Your task to perform on an android device: change timer sound Image 0: 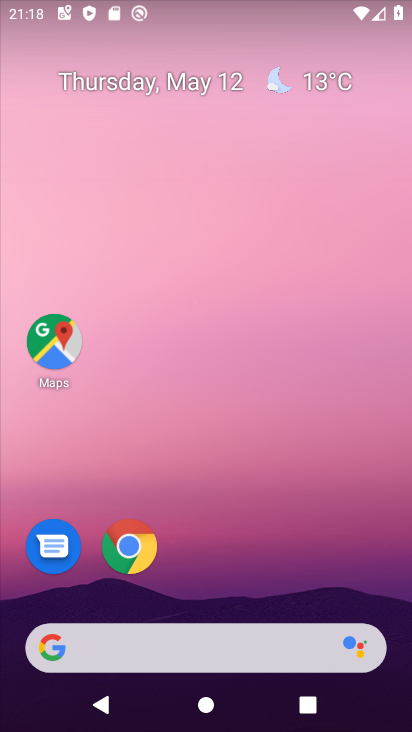
Step 0: drag from (286, 518) to (309, 34)
Your task to perform on an android device: change timer sound Image 1: 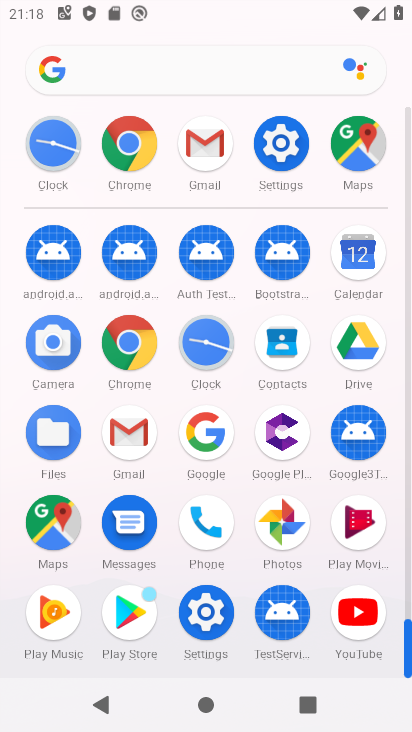
Step 1: click (211, 347)
Your task to perform on an android device: change timer sound Image 2: 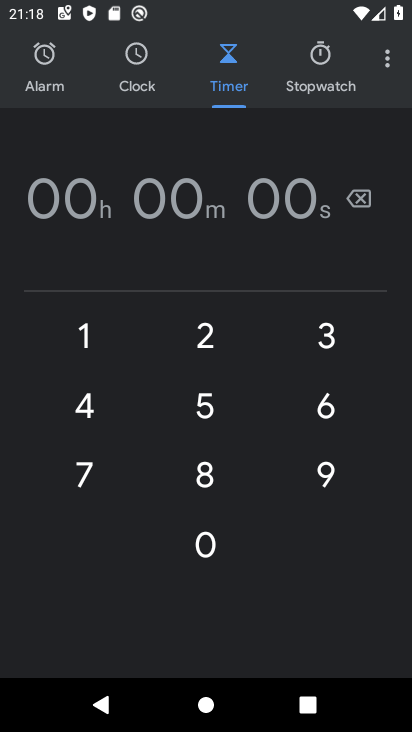
Step 2: click (383, 67)
Your task to perform on an android device: change timer sound Image 3: 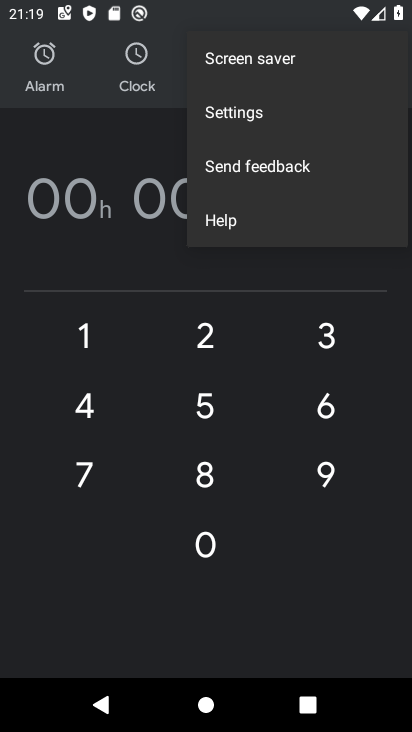
Step 3: click (238, 115)
Your task to perform on an android device: change timer sound Image 4: 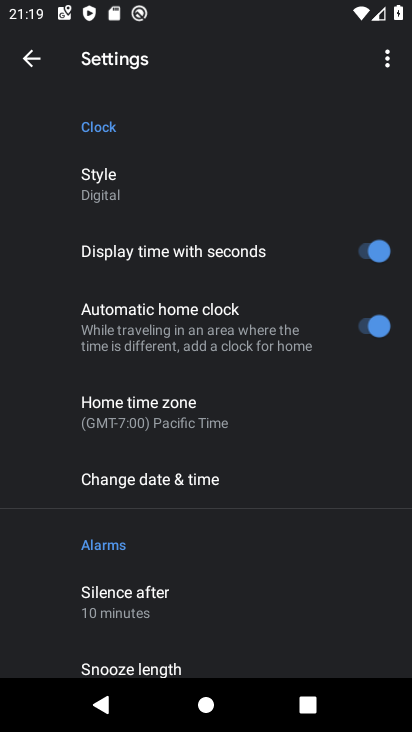
Step 4: drag from (220, 629) to (251, 167)
Your task to perform on an android device: change timer sound Image 5: 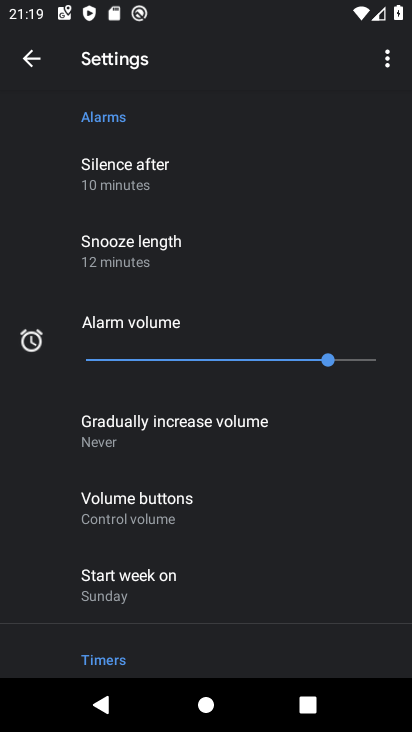
Step 5: drag from (250, 600) to (283, 194)
Your task to perform on an android device: change timer sound Image 6: 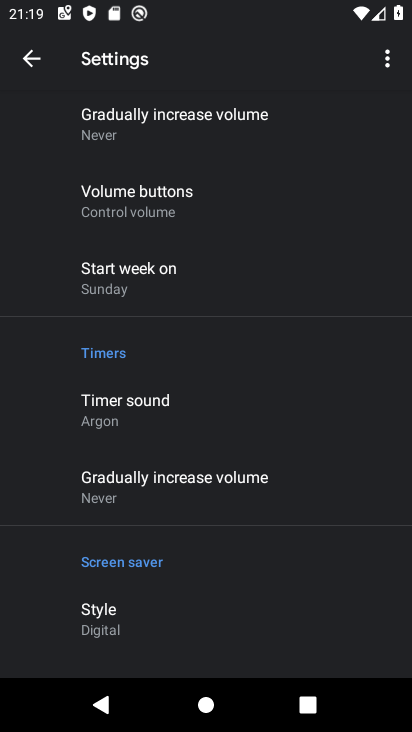
Step 6: click (132, 399)
Your task to perform on an android device: change timer sound Image 7: 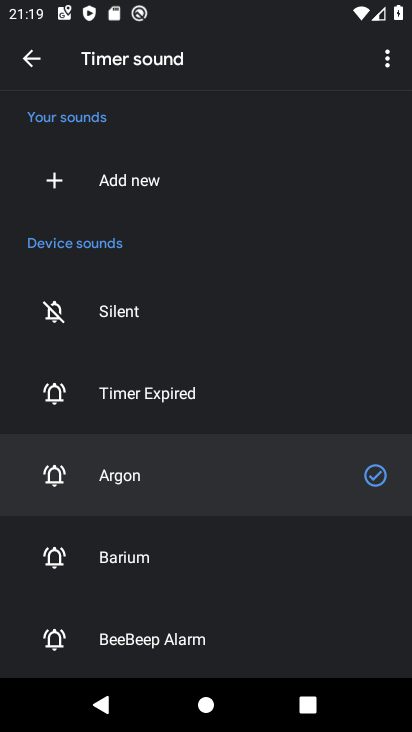
Step 7: click (210, 566)
Your task to perform on an android device: change timer sound Image 8: 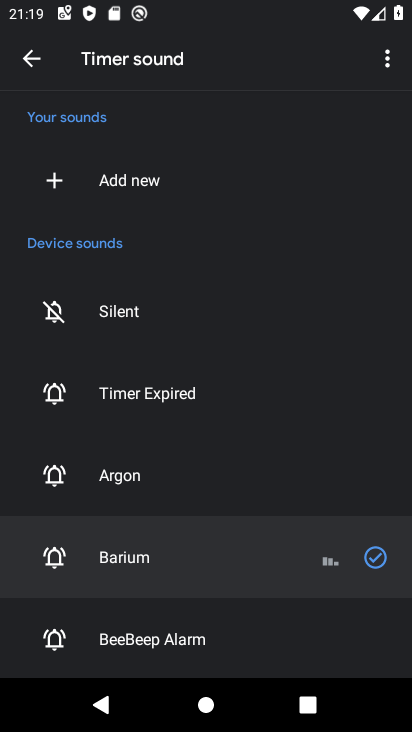
Step 8: click (369, 556)
Your task to perform on an android device: change timer sound Image 9: 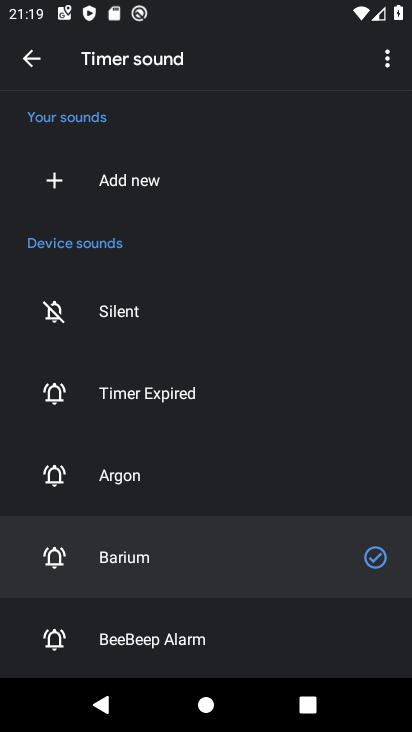
Step 9: task complete